Your task to perform on an android device: check the backup settings in the google photos Image 0: 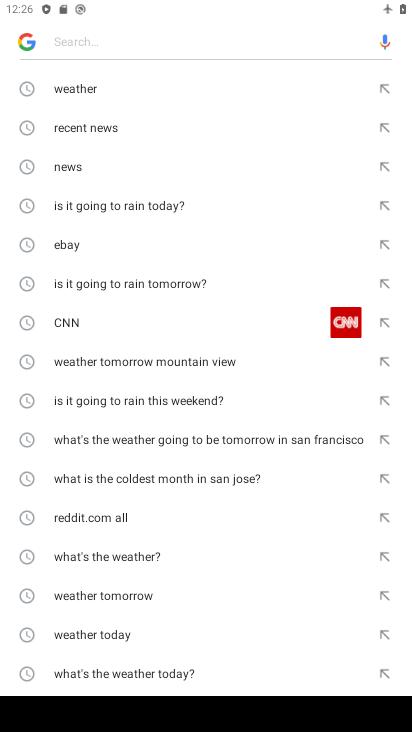
Step 0: press home button
Your task to perform on an android device: check the backup settings in the google photos Image 1: 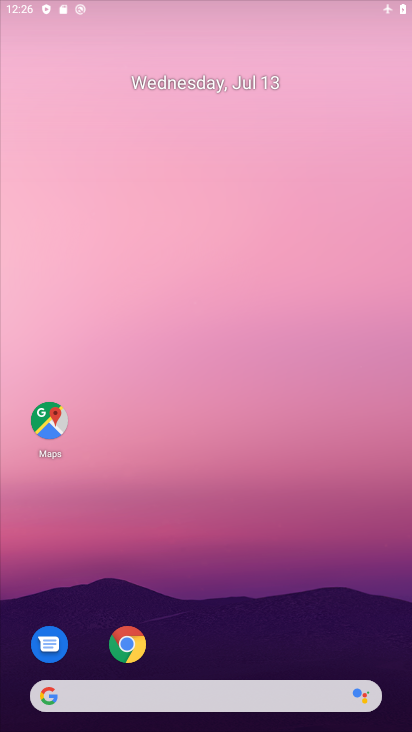
Step 1: drag from (286, 587) to (260, 147)
Your task to perform on an android device: check the backup settings in the google photos Image 2: 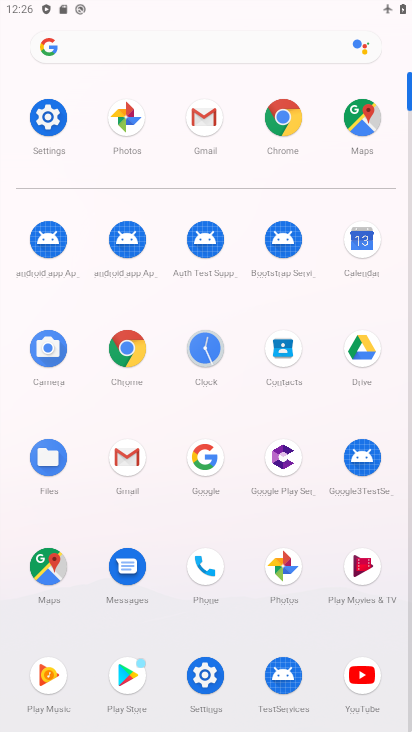
Step 2: click (289, 560)
Your task to perform on an android device: check the backup settings in the google photos Image 3: 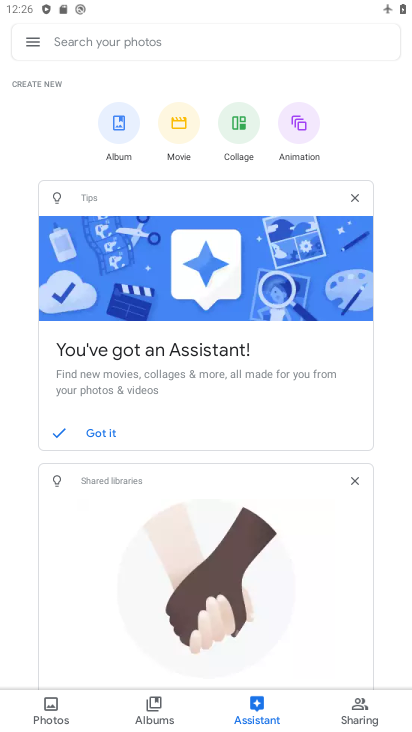
Step 3: click (31, 36)
Your task to perform on an android device: check the backup settings in the google photos Image 4: 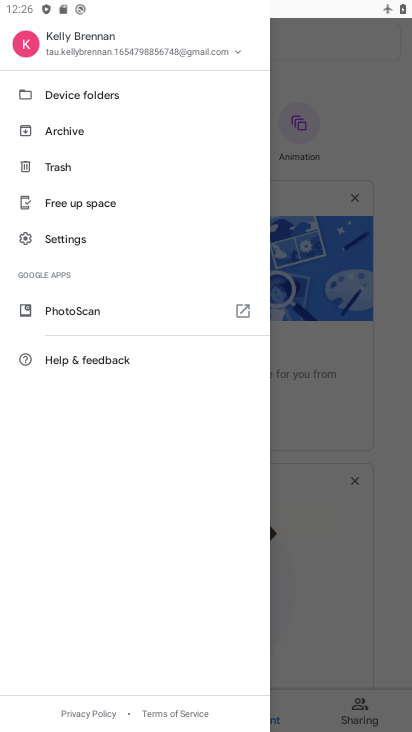
Step 4: click (83, 239)
Your task to perform on an android device: check the backup settings in the google photos Image 5: 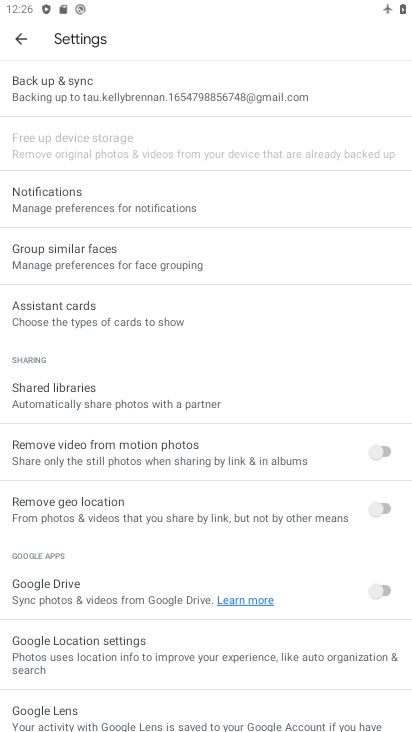
Step 5: click (126, 96)
Your task to perform on an android device: check the backup settings in the google photos Image 6: 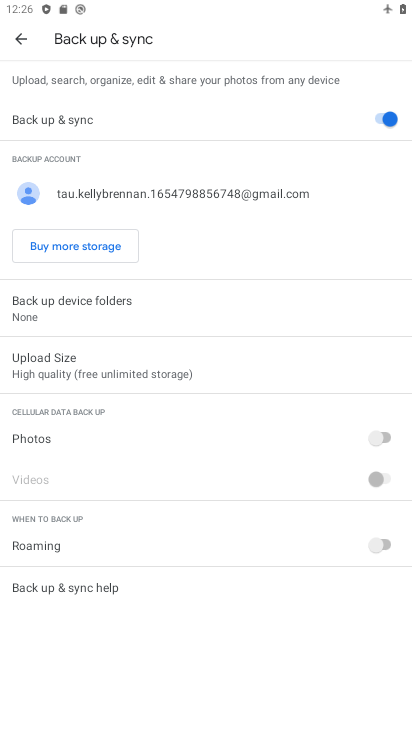
Step 6: task complete